Your task to perform on an android device: check google app version Image 0: 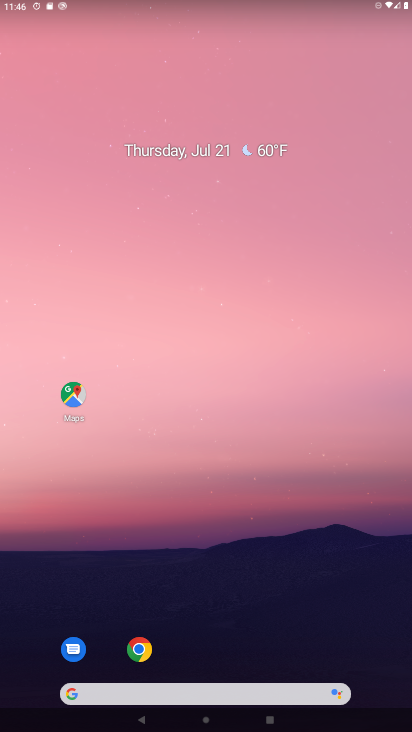
Step 0: drag from (376, 533) to (363, 121)
Your task to perform on an android device: check google app version Image 1: 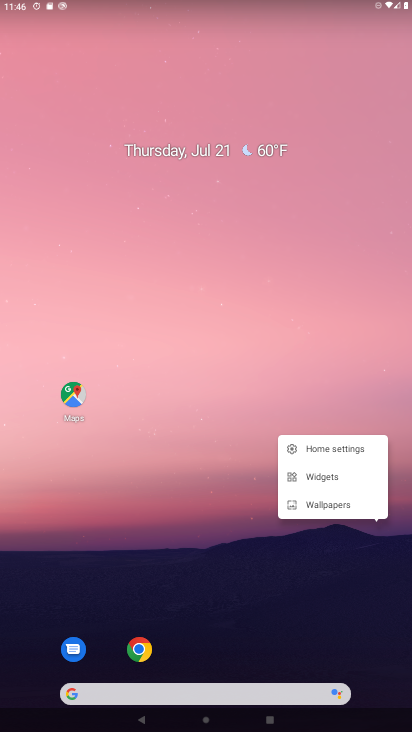
Step 1: click (326, 142)
Your task to perform on an android device: check google app version Image 2: 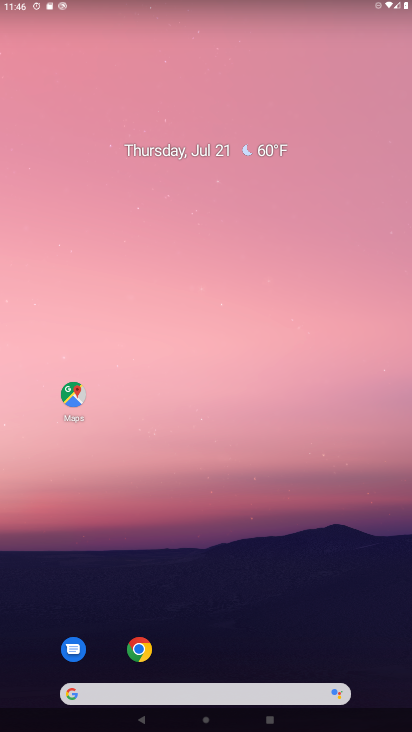
Step 2: task complete